Your task to perform on an android device: Go to wifi settings Image 0: 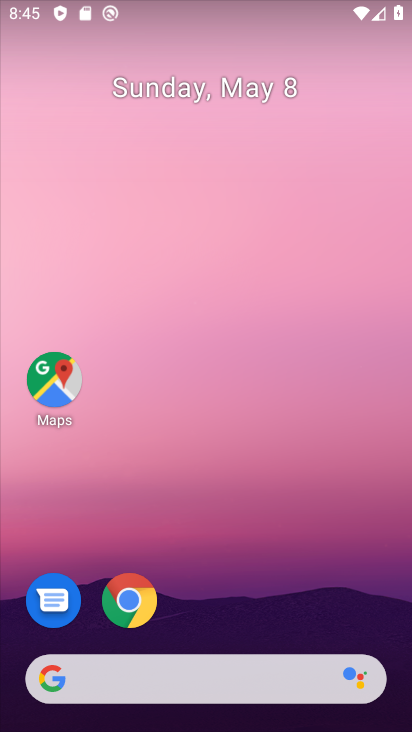
Step 0: drag from (238, 655) to (365, 23)
Your task to perform on an android device: Go to wifi settings Image 1: 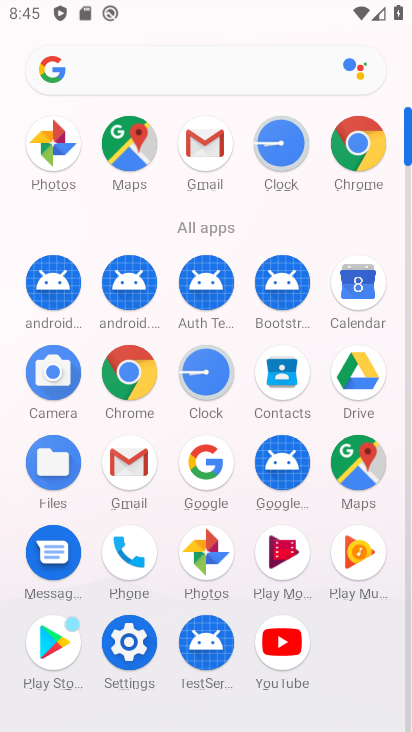
Step 1: click (124, 646)
Your task to perform on an android device: Go to wifi settings Image 2: 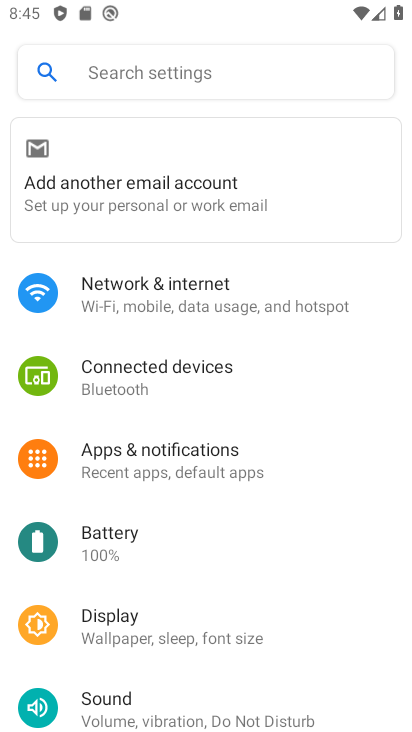
Step 2: click (157, 305)
Your task to perform on an android device: Go to wifi settings Image 3: 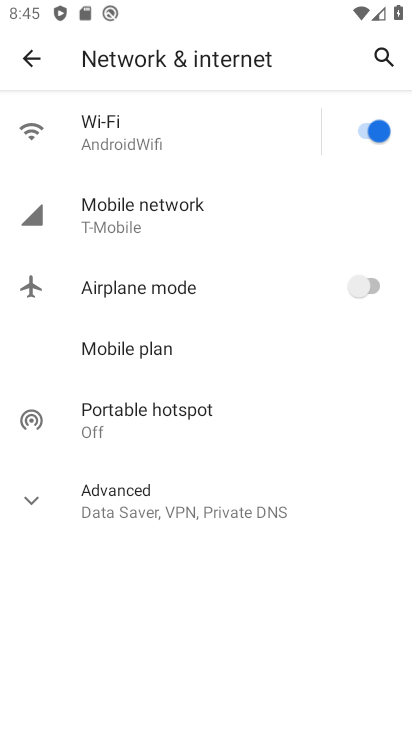
Step 3: click (162, 132)
Your task to perform on an android device: Go to wifi settings Image 4: 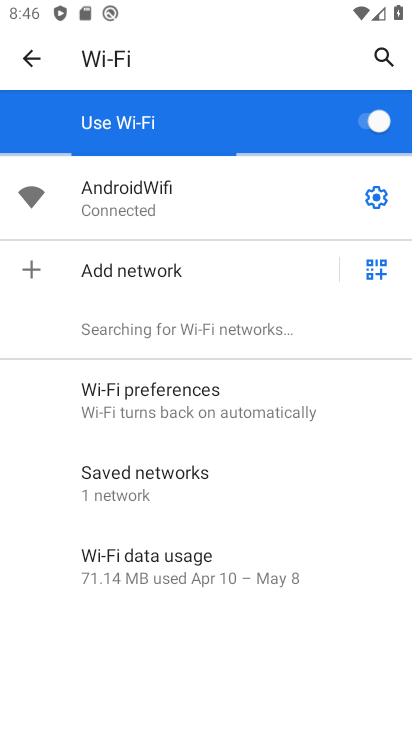
Step 4: task complete